Your task to perform on an android device: Search for macbook pro 15 inch on costco, select the first entry, and add it to the cart. Image 0: 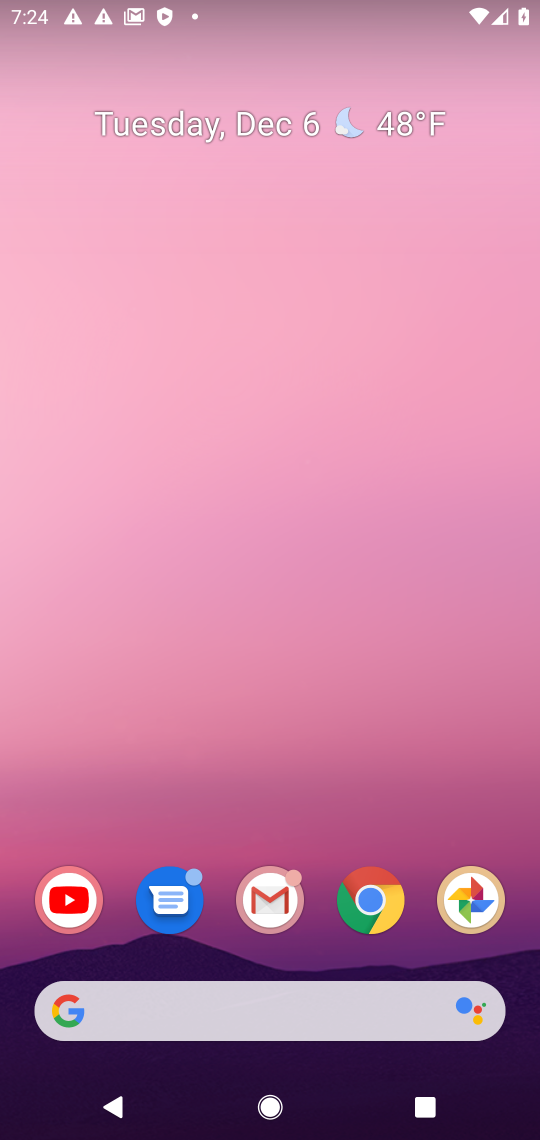
Step 0: drag from (288, 848) to (288, 249)
Your task to perform on an android device: Search for macbook pro 15 inch on costco, select the first entry, and add it to the cart. Image 1: 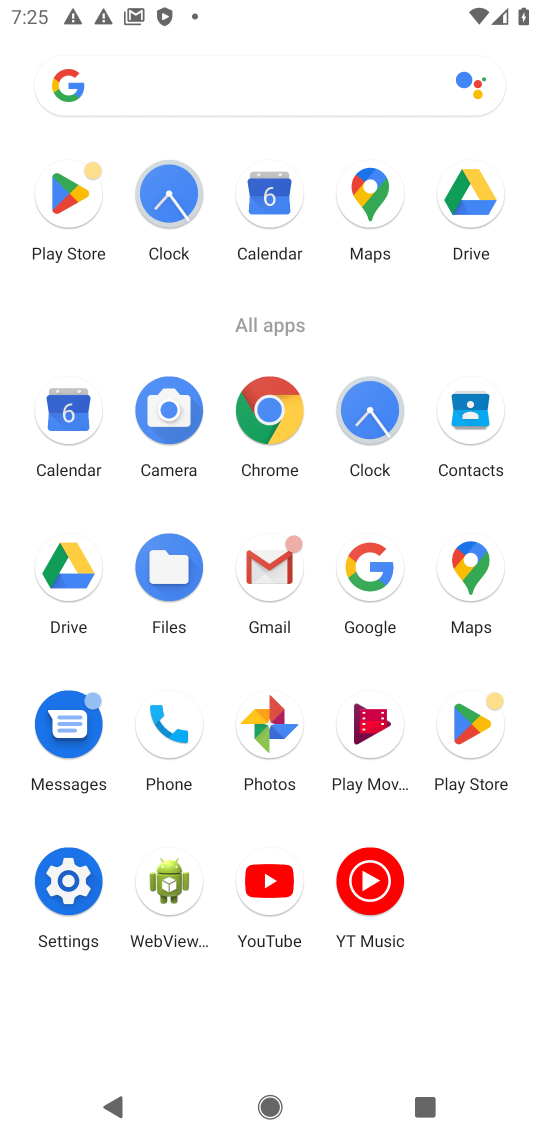
Step 1: click (361, 558)
Your task to perform on an android device: Search for macbook pro 15 inch on costco, select the first entry, and add it to the cart. Image 2: 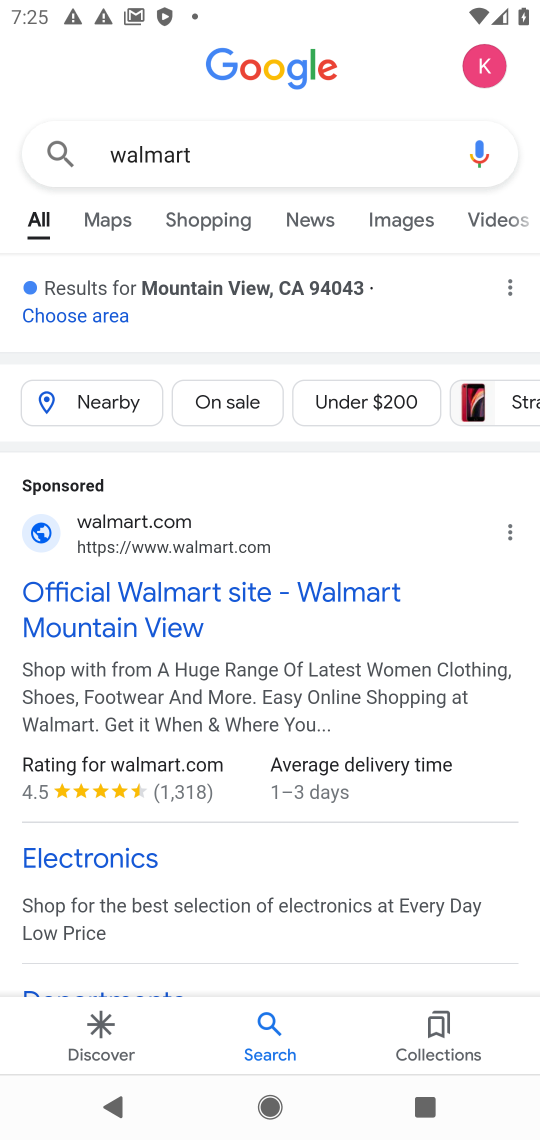
Step 2: click (143, 155)
Your task to perform on an android device: Search for macbook pro 15 inch on costco, select the first entry, and add it to the cart. Image 3: 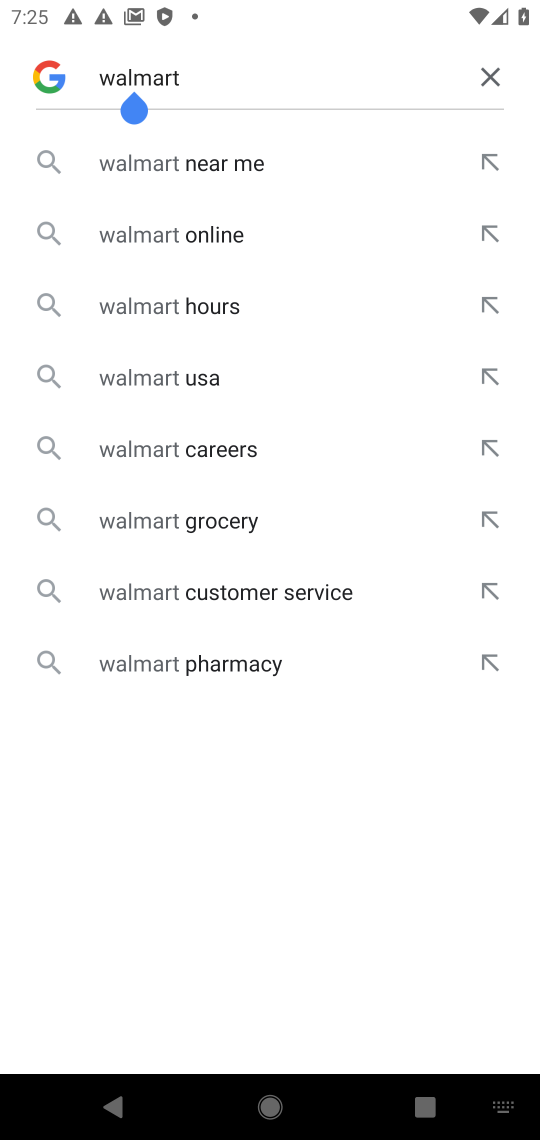
Step 3: click (488, 88)
Your task to perform on an android device: Search for macbook pro 15 inch on costco, select the first entry, and add it to the cart. Image 4: 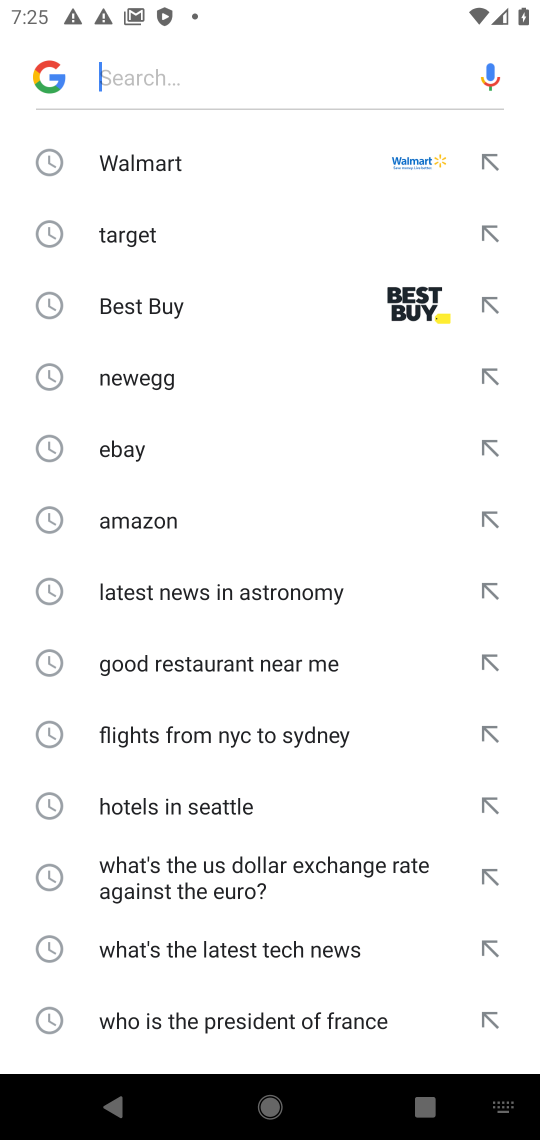
Step 4: type "costco"
Your task to perform on an android device: Search for macbook pro 15 inch on costco, select the first entry, and add it to the cart. Image 5: 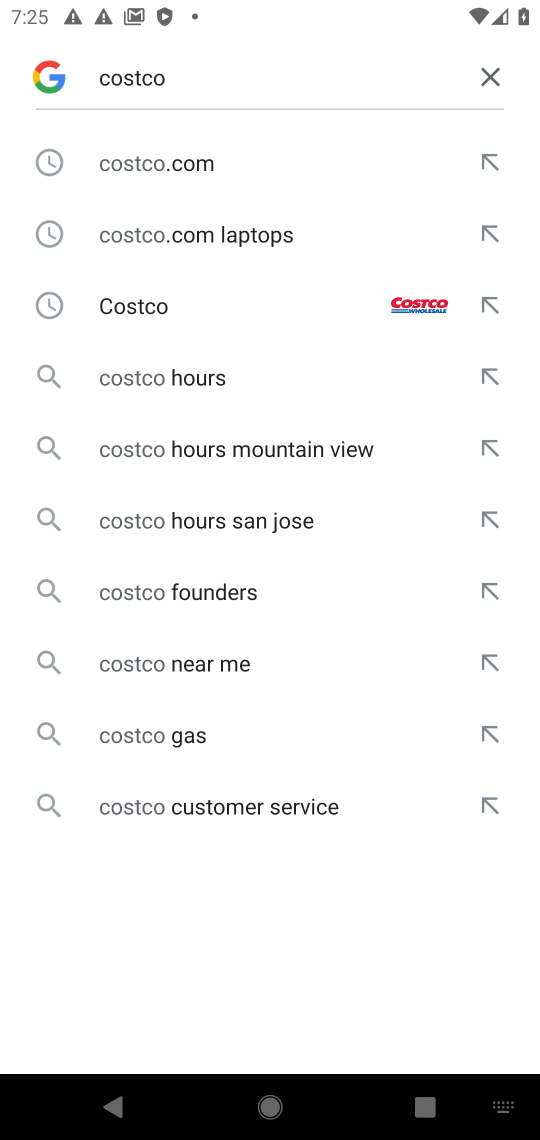
Step 5: click (494, 167)
Your task to perform on an android device: Search for macbook pro 15 inch on costco, select the first entry, and add it to the cart. Image 6: 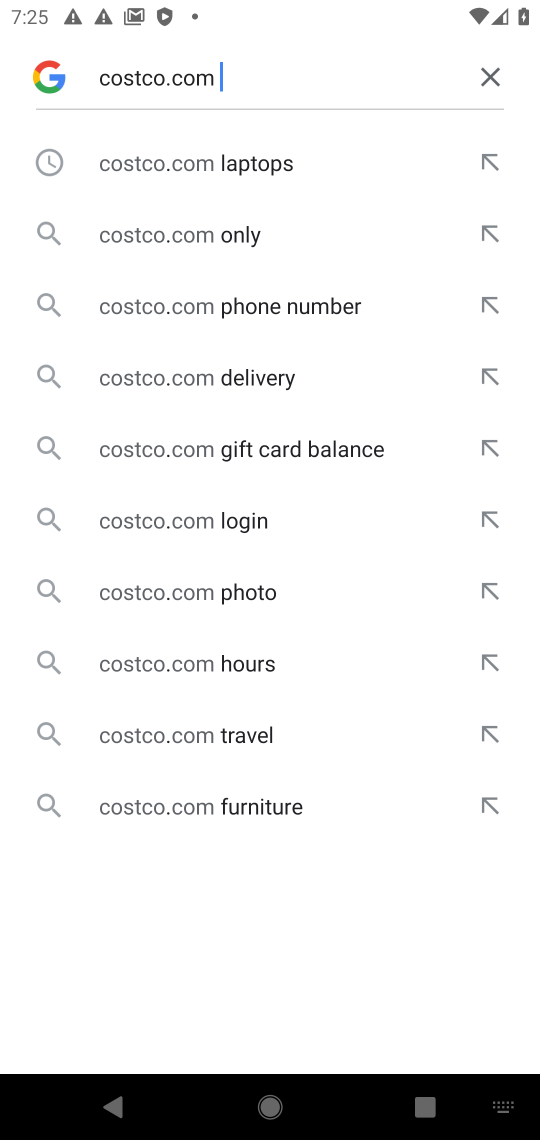
Step 6: click (169, 239)
Your task to perform on an android device: Search for macbook pro 15 inch on costco, select the first entry, and add it to the cart. Image 7: 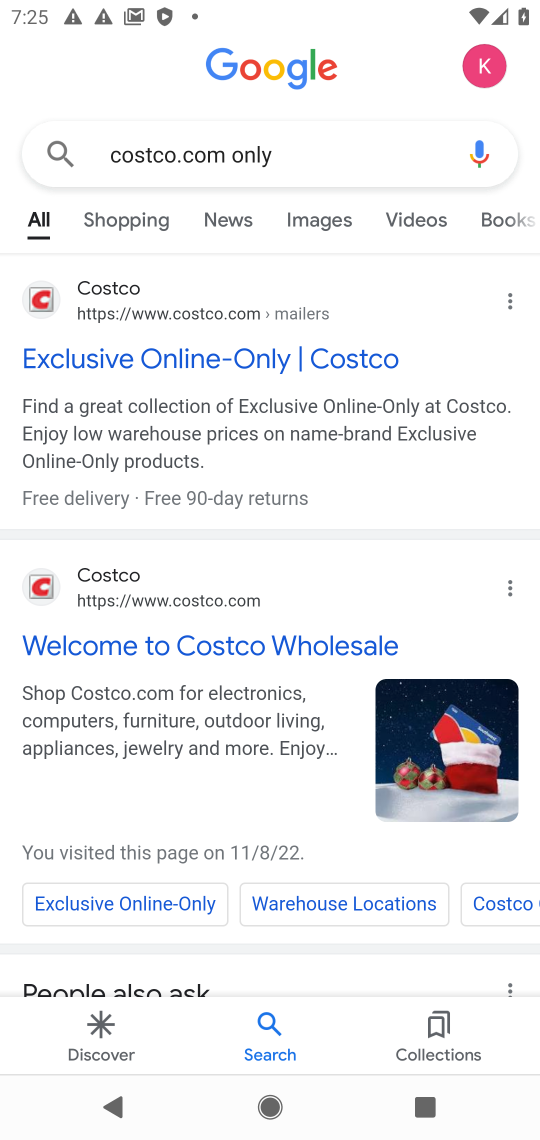
Step 7: click (239, 639)
Your task to perform on an android device: Search for macbook pro 15 inch on costco, select the first entry, and add it to the cart. Image 8: 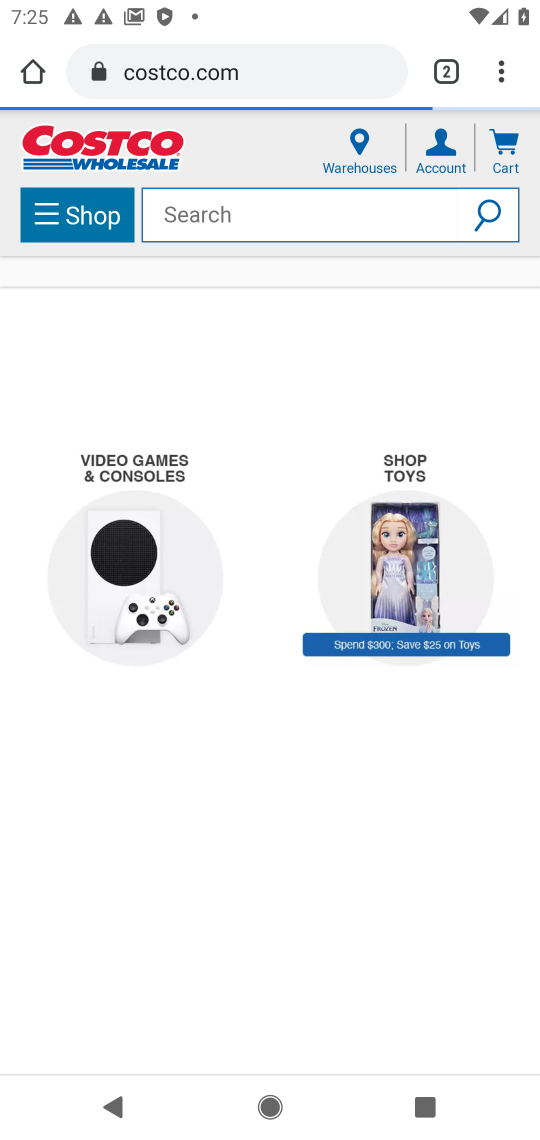
Step 8: click (224, 222)
Your task to perform on an android device: Search for macbook pro 15 inch on costco, select the first entry, and add it to the cart. Image 9: 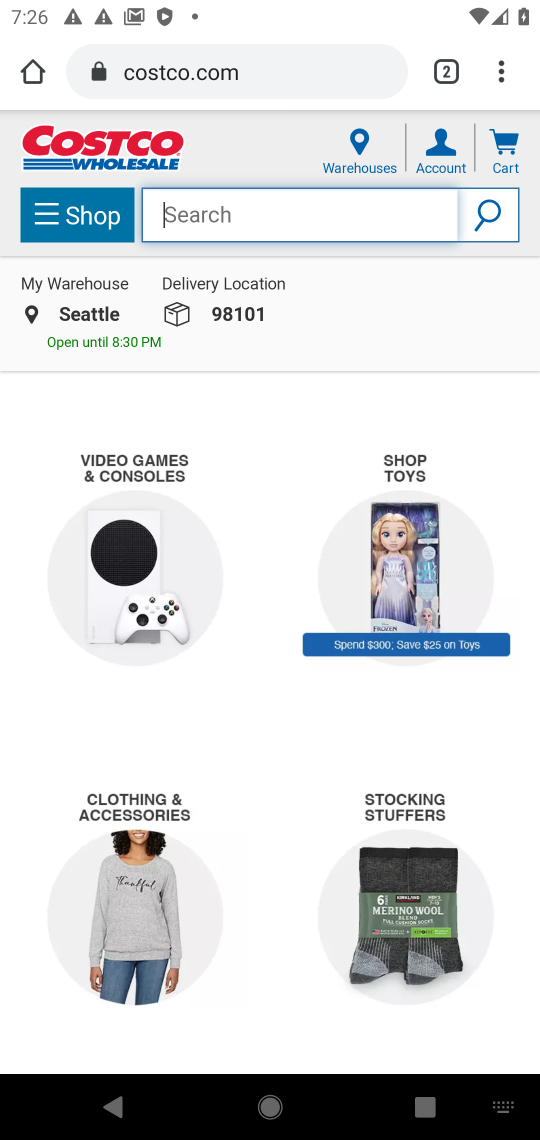
Step 9: type "macbook pro 15"
Your task to perform on an android device: Search for macbook pro 15 inch on costco, select the first entry, and add it to the cart. Image 10: 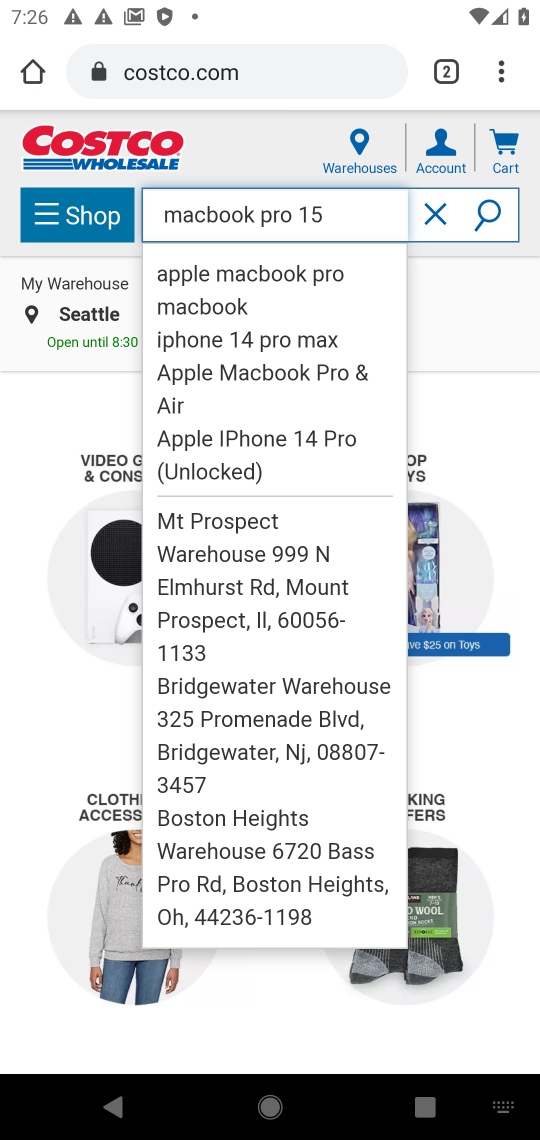
Step 10: click (489, 204)
Your task to perform on an android device: Search for macbook pro 15 inch on costco, select the first entry, and add it to the cart. Image 11: 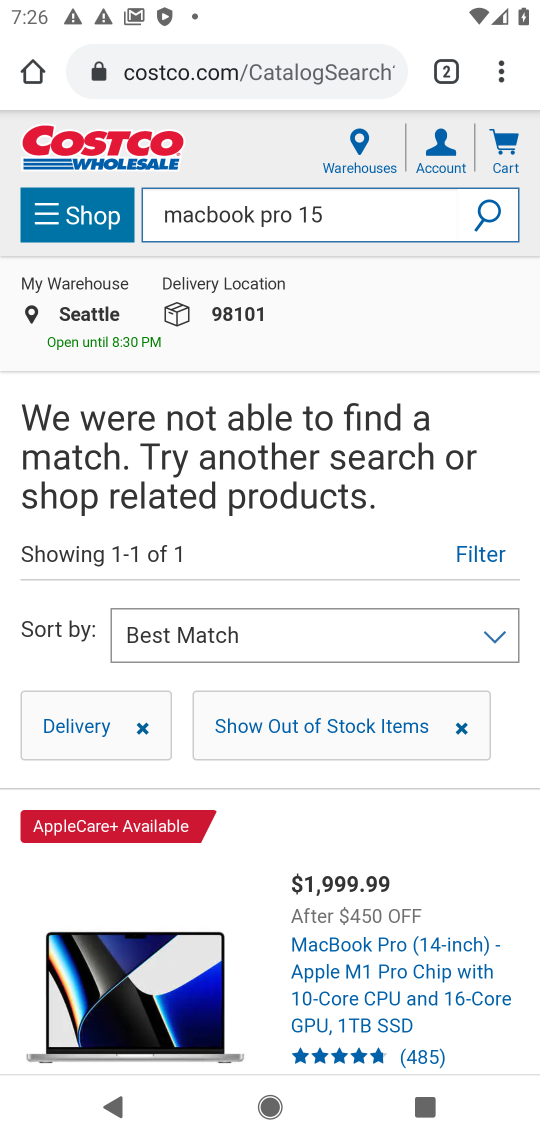
Step 11: drag from (342, 1006) to (424, 458)
Your task to perform on an android device: Search for macbook pro 15 inch on costco, select the first entry, and add it to the cart. Image 12: 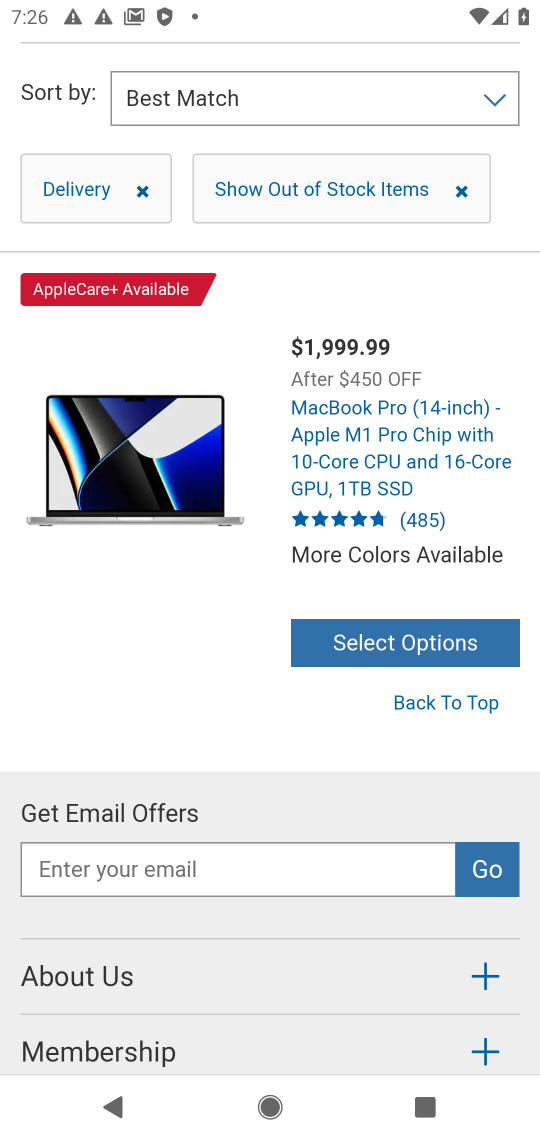
Step 12: click (368, 389)
Your task to perform on an android device: Search for macbook pro 15 inch on costco, select the first entry, and add it to the cart. Image 13: 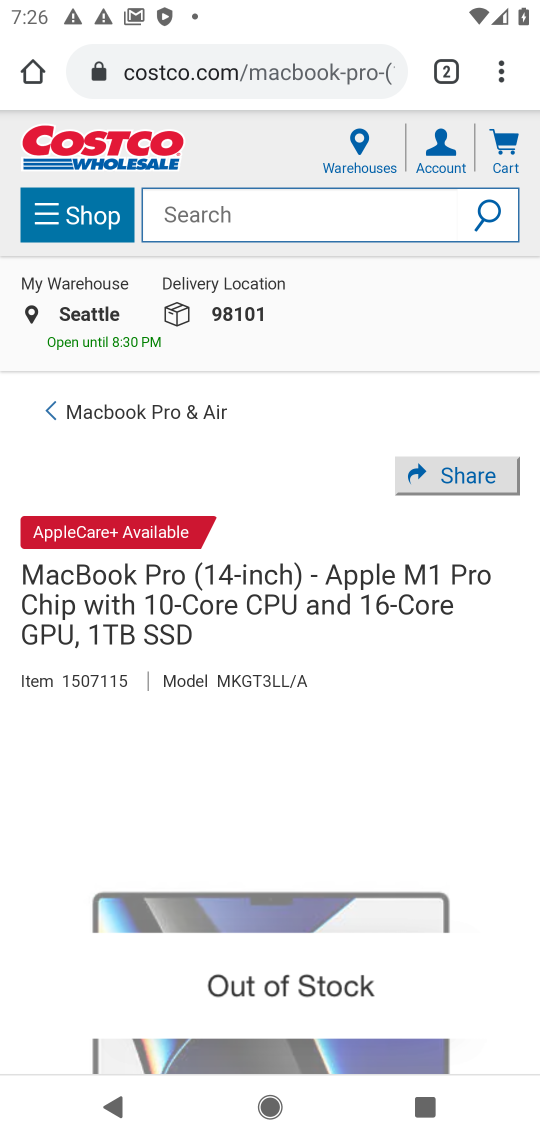
Step 13: task complete